Your task to perform on an android device: toggle improve location accuracy Image 0: 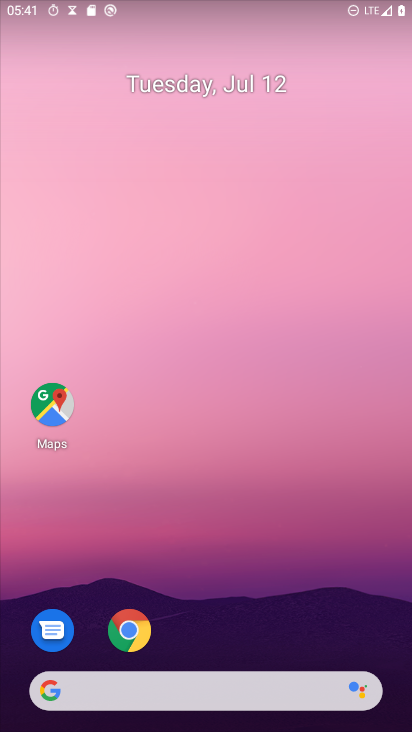
Step 0: drag from (279, 666) to (390, 364)
Your task to perform on an android device: toggle improve location accuracy Image 1: 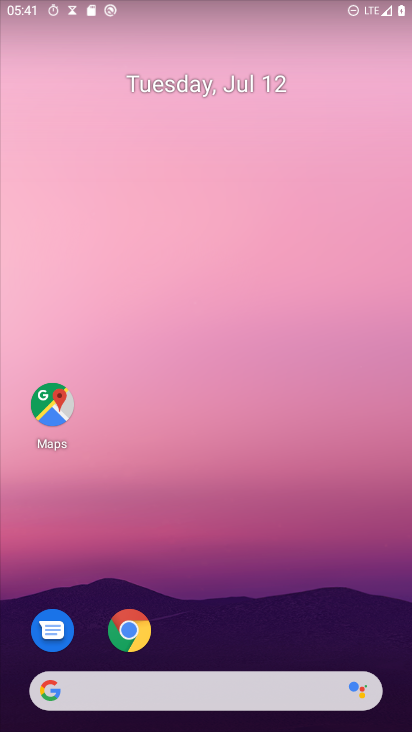
Step 1: click (127, 115)
Your task to perform on an android device: toggle improve location accuracy Image 2: 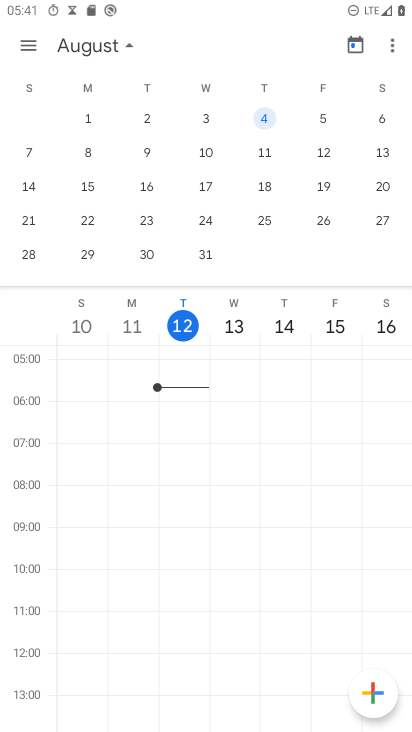
Step 2: drag from (223, 675) to (178, 226)
Your task to perform on an android device: toggle improve location accuracy Image 3: 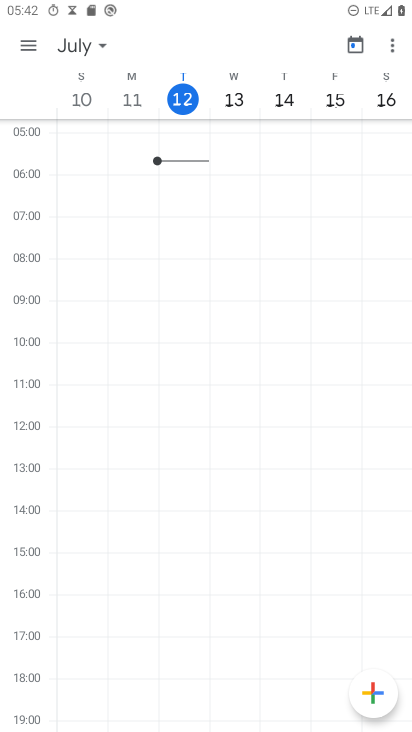
Step 3: press home button
Your task to perform on an android device: toggle improve location accuracy Image 4: 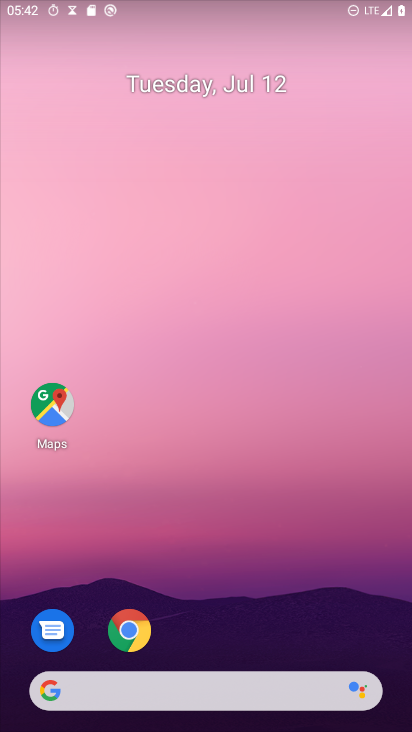
Step 4: drag from (258, 694) to (237, 52)
Your task to perform on an android device: toggle improve location accuracy Image 5: 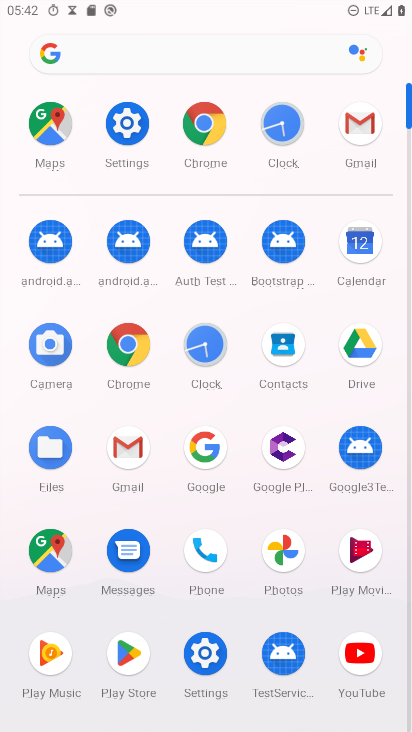
Step 5: click (125, 140)
Your task to perform on an android device: toggle improve location accuracy Image 6: 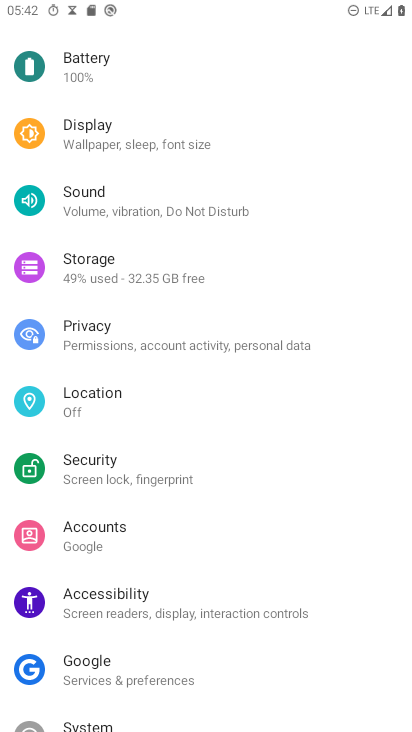
Step 6: click (164, 399)
Your task to perform on an android device: toggle improve location accuracy Image 7: 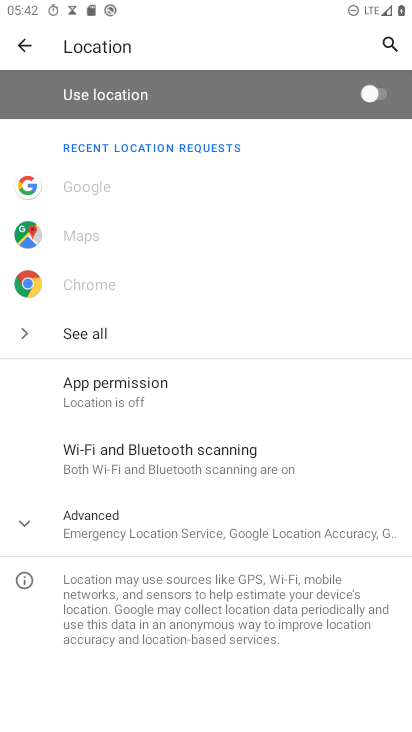
Step 7: click (191, 519)
Your task to perform on an android device: toggle improve location accuracy Image 8: 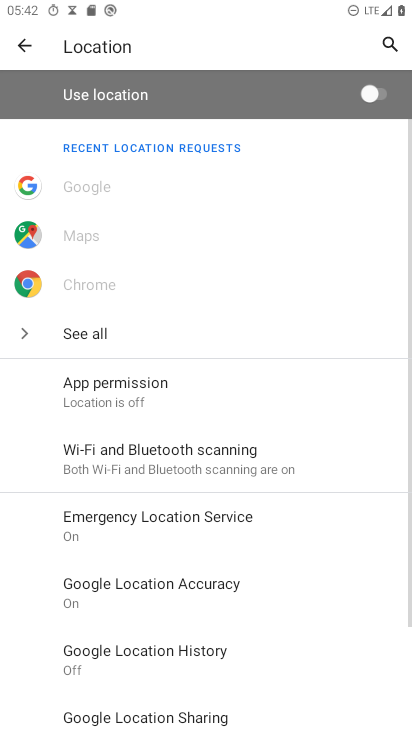
Step 8: click (209, 590)
Your task to perform on an android device: toggle improve location accuracy Image 9: 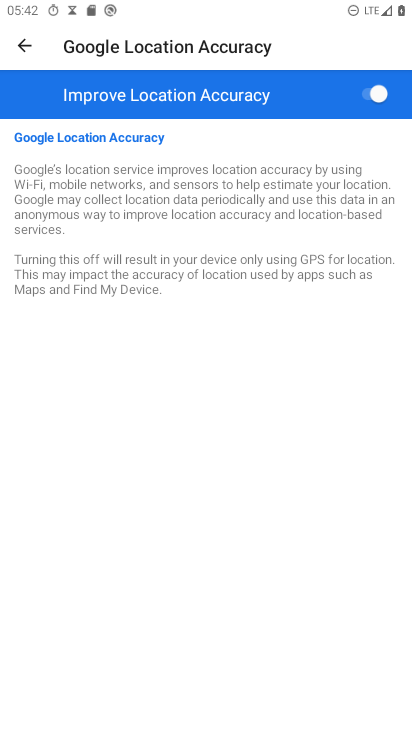
Step 9: click (369, 87)
Your task to perform on an android device: toggle improve location accuracy Image 10: 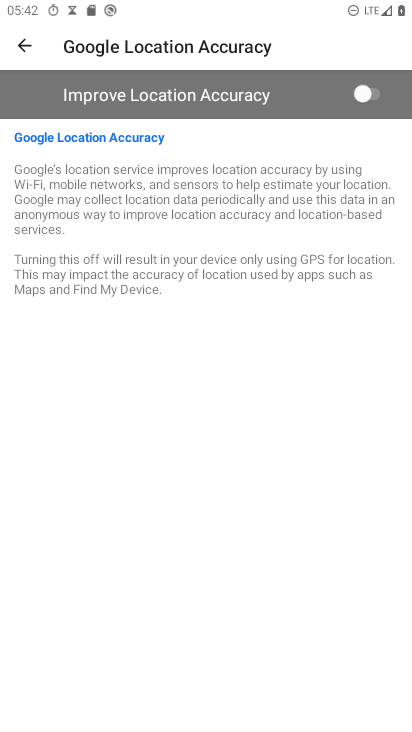
Step 10: task complete